Your task to perform on an android device: change the clock display to analog Image 0: 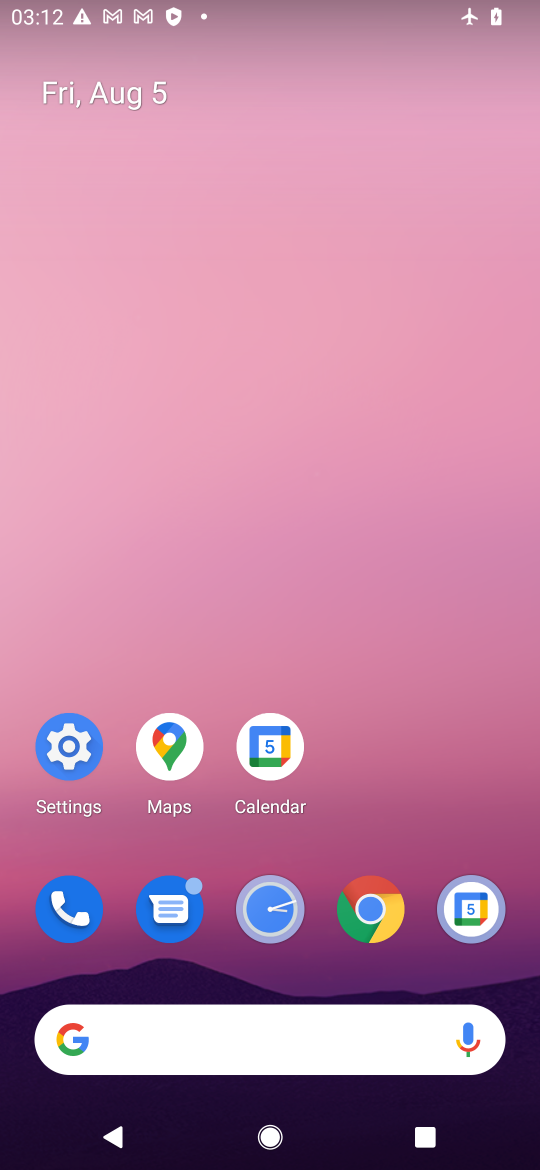
Step 0: click (264, 907)
Your task to perform on an android device: change the clock display to analog Image 1: 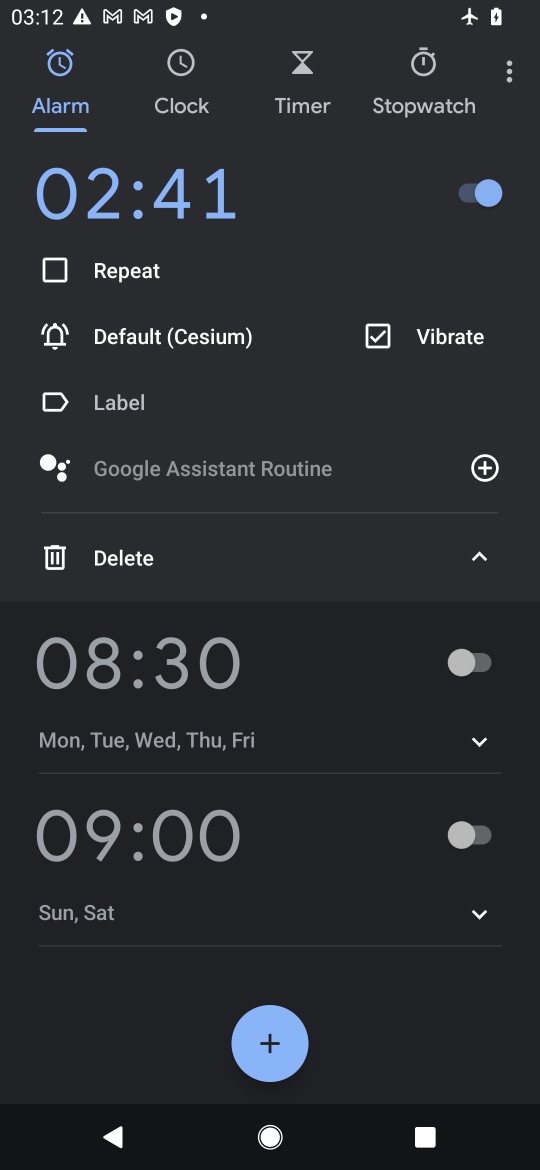
Step 1: click (510, 77)
Your task to perform on an android device: change the clock display to analog Image 2: 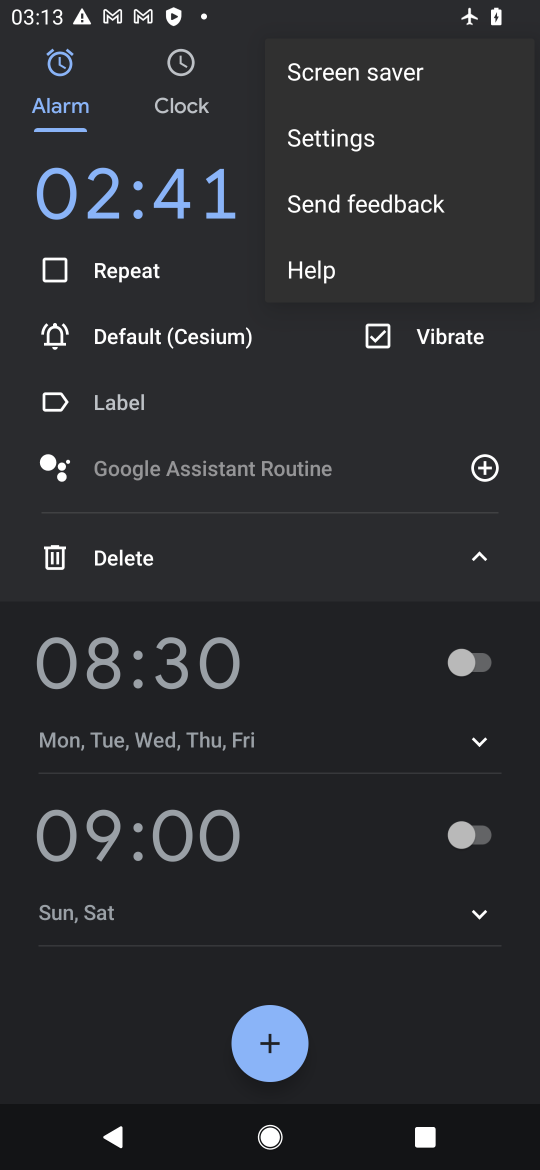
Step 2: click (333, 143)
Your task to perform on an android device: change the clock display to analog Image 3: 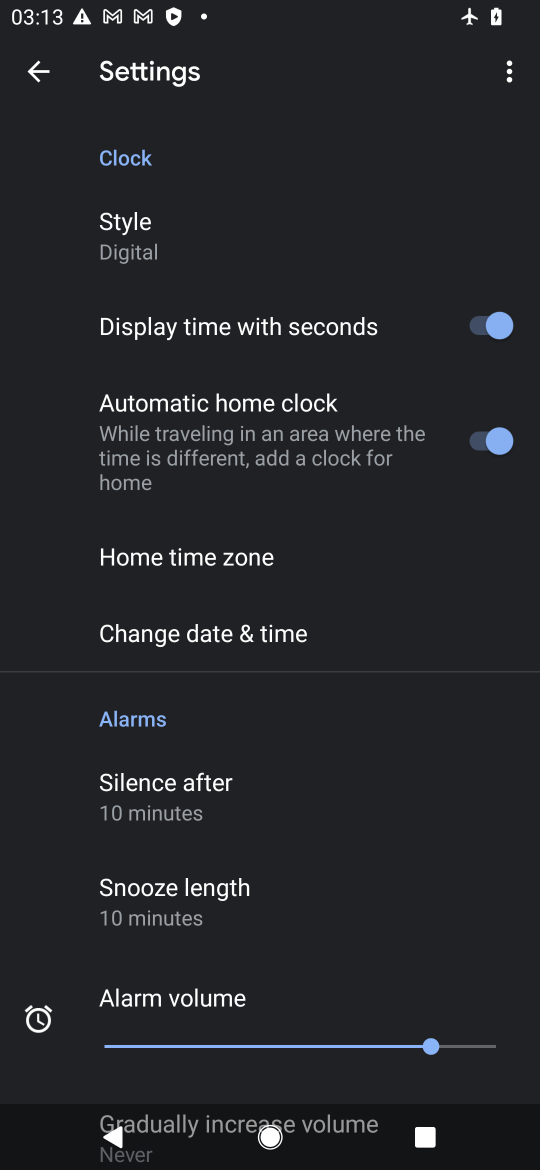
Step 3: click (120, 221)
Your task to perform on an android device: change the clock display to analog Image 4: 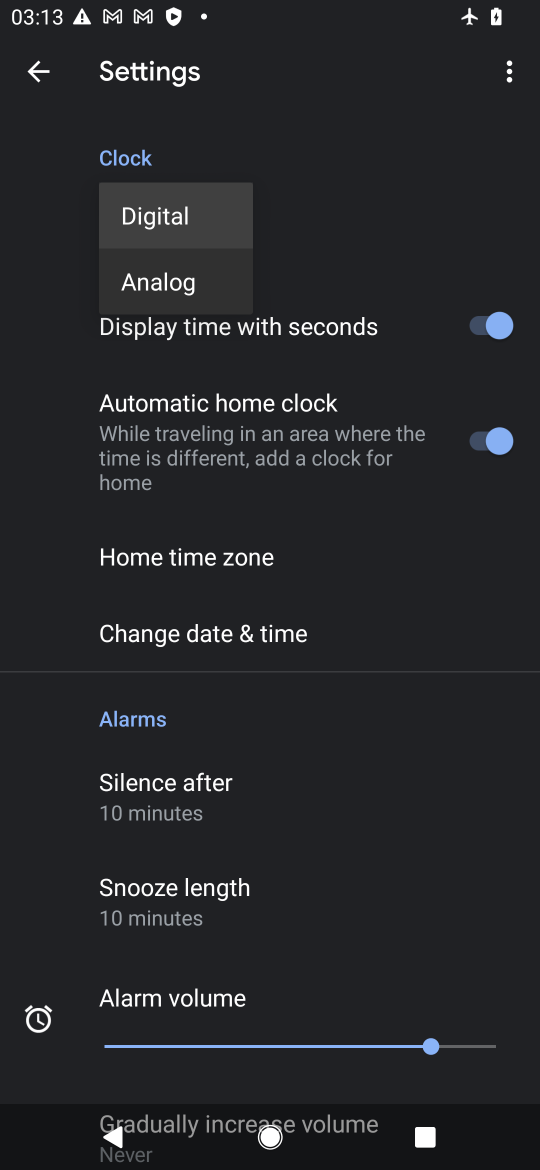
Step 4: click (159, 279)
Your task to perform on an android device: change the clock display to analog Image 5: 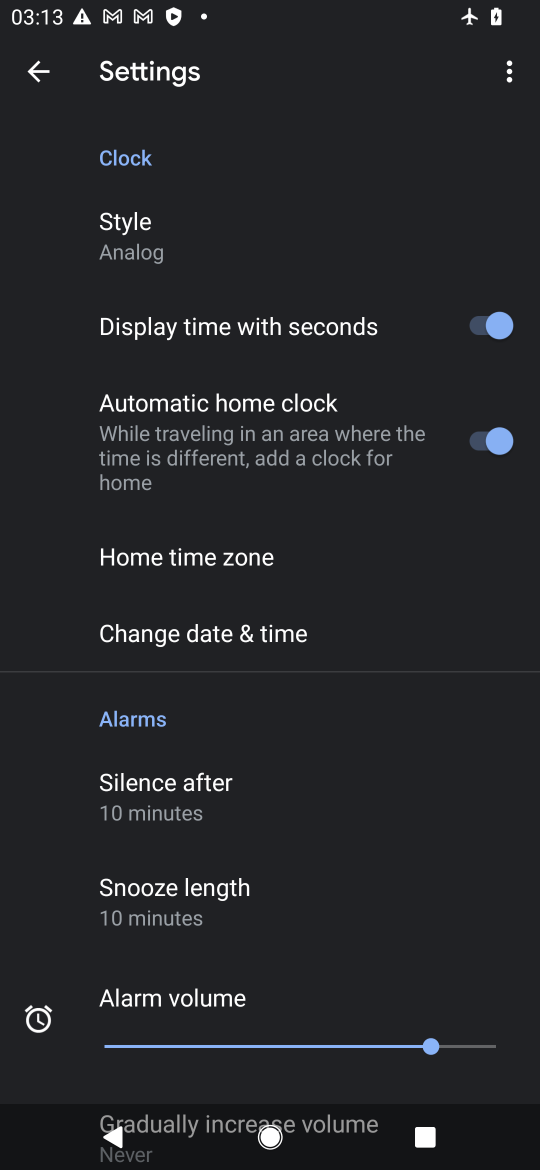
Step 5: task complete